Your task to perform on an android device: What is the recent news? Image 0: 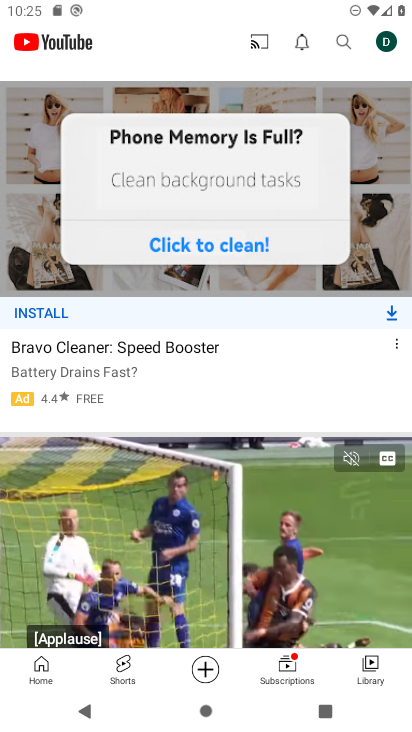
Step 0: press home button
Your task to perform on an android device: What is the recent news? Image 1: 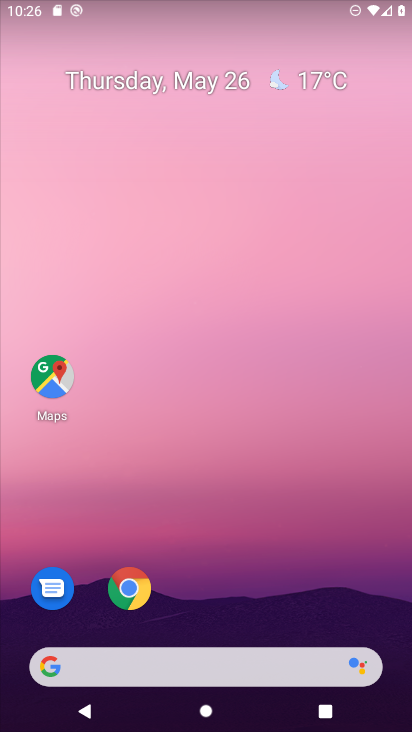
Step 1: task complete